Your task to perform on an android device: Open Google Chrome and open the bookmarks view Image 0: 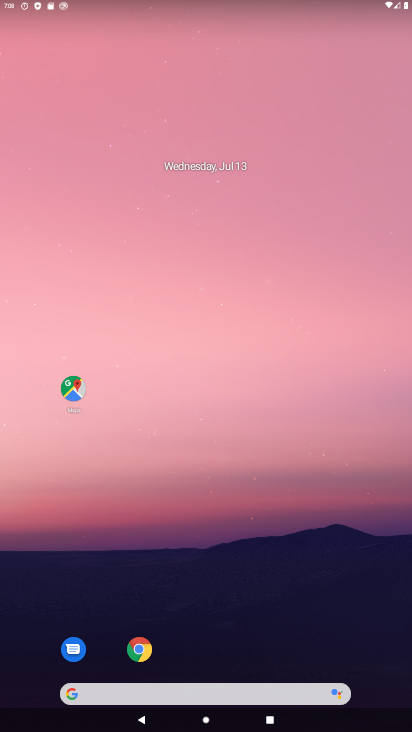
Step 0: click (140, 650)
Your task to perform on an android device: Open Google Chrome and open the bookmarks view Image 1: 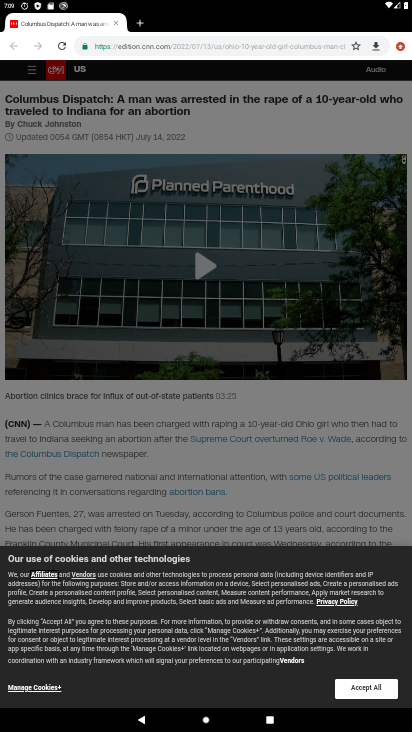
Step 1: click (401, 47)
Your task to perform on an android device: Open Google Chrome and open the bookmarks view Image 2: 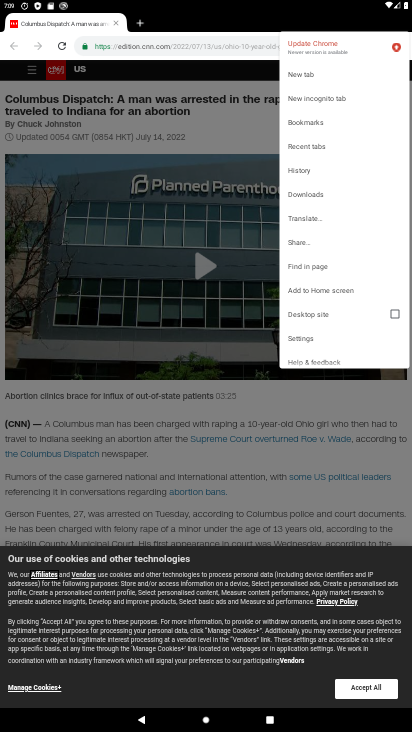
Step 2: click (318, 122)
Your task to perform on an android device: Open Google Chrome and open the bookmarks view Image 3: 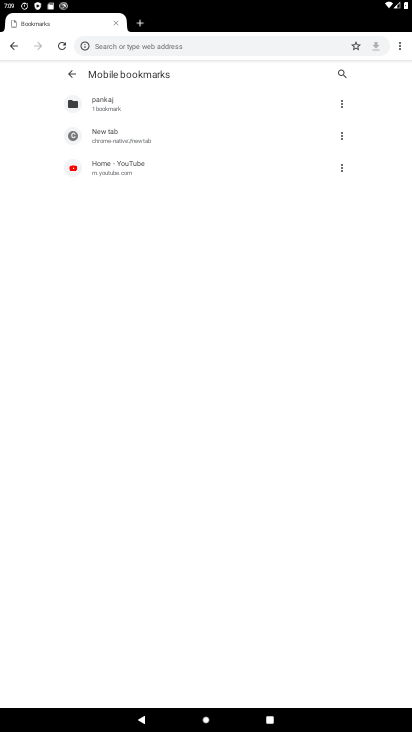
Step 3: task complete